Your task to perform on an android device: open a new tab in the chrome app Image 0: 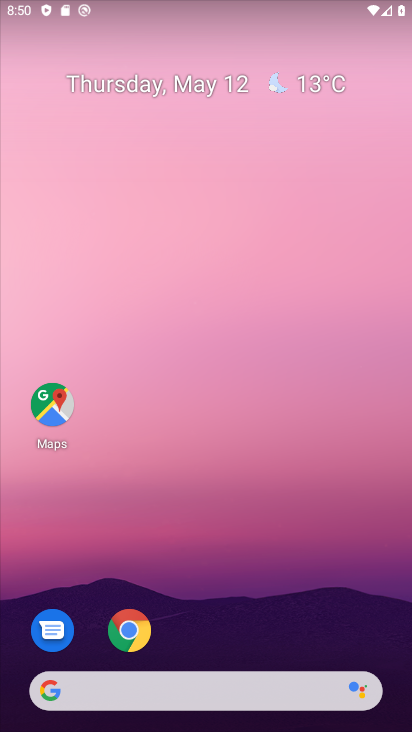
Step 0: drag from (169, 684) to (228, 174)
Your task to perform on an android device: open a new tab in the chrome app Image 1: 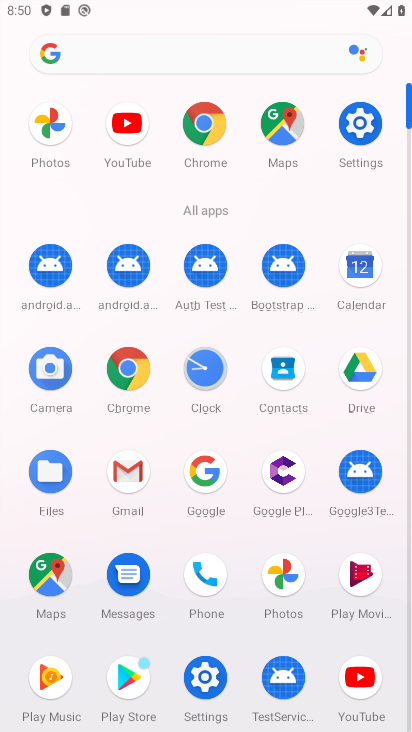
Step 1: click (119, 377)
Your task to perform on an android device: open a new tab in the chrome app Image 2: 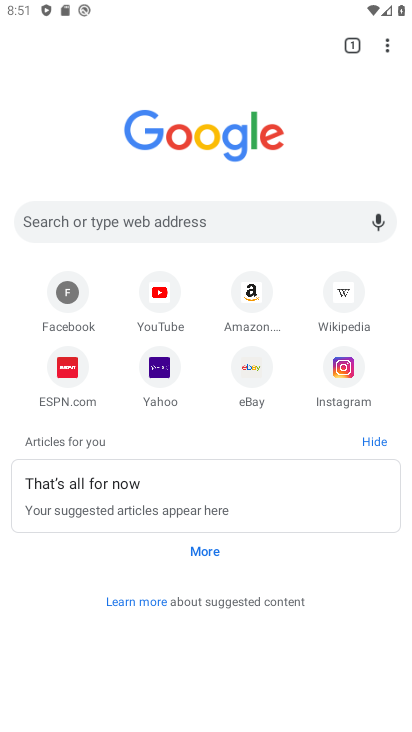
Step 2: click (389, 83)
Your task to perform on an android device: open a new tab in the chrome app Image 3: 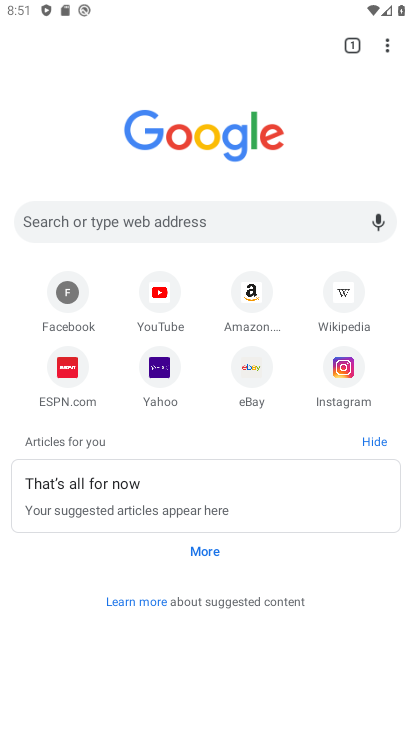
Step 3: task complete